Your task to perform on an android device: Go to Google maps Image 0: 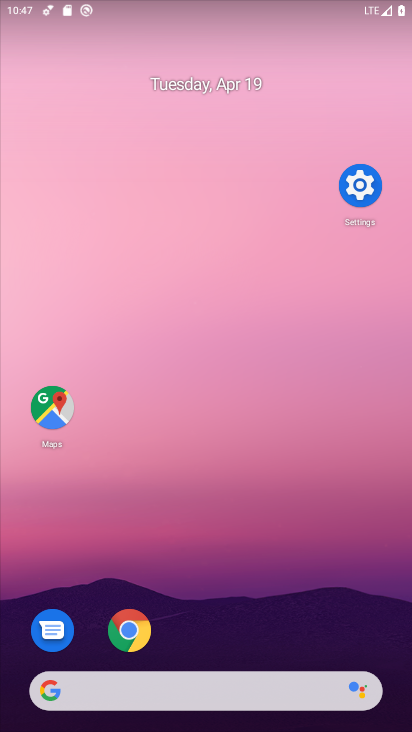
Step 0: drag from (296, 479) to (287, 0)
Your task to perform on an android device: Go to Google maps Image 1: 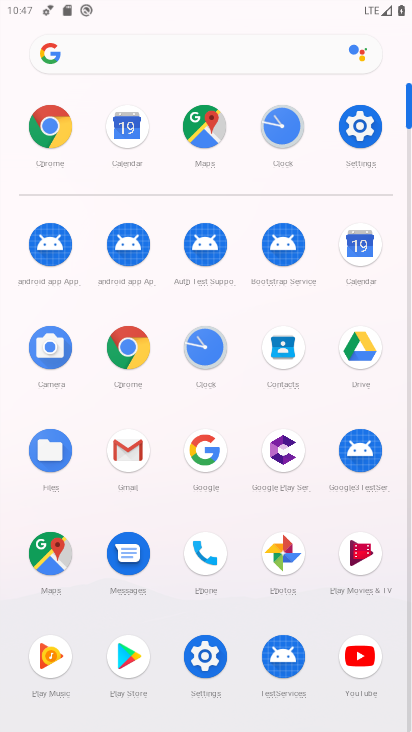
Step 1: click (63, 569)
Your task to perform on an android device: Go to Google maps Image 2: 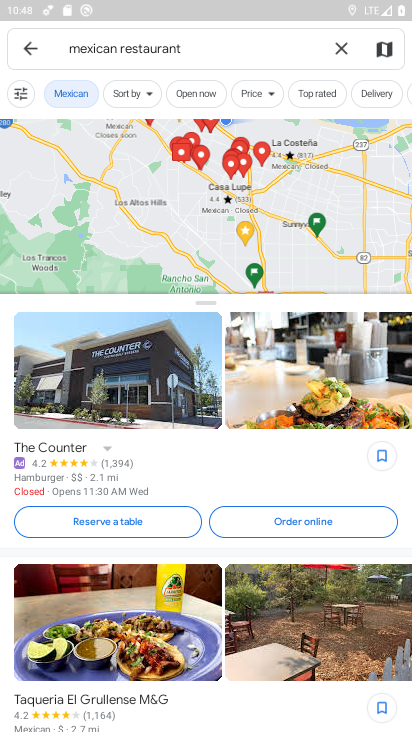
Step 2: task complete